Your task to perform on an android device: Open the stopwatch Image 0: 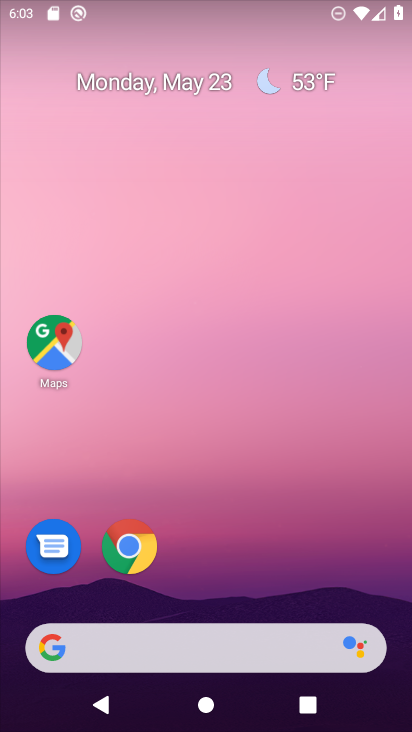
Step 0: drag from (281, 598) to (277, 225)
Your task to perform on an android device: Open the stopwatch Image 1: 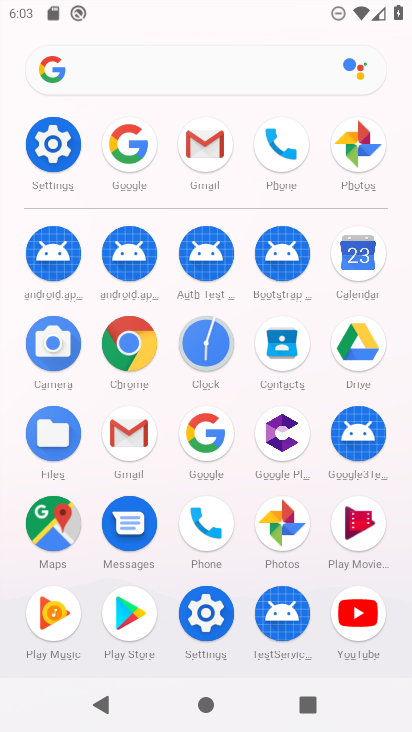
Step 1: click (215, 346)
Your task to perform on an android device: Open the stopwatch Image 2: 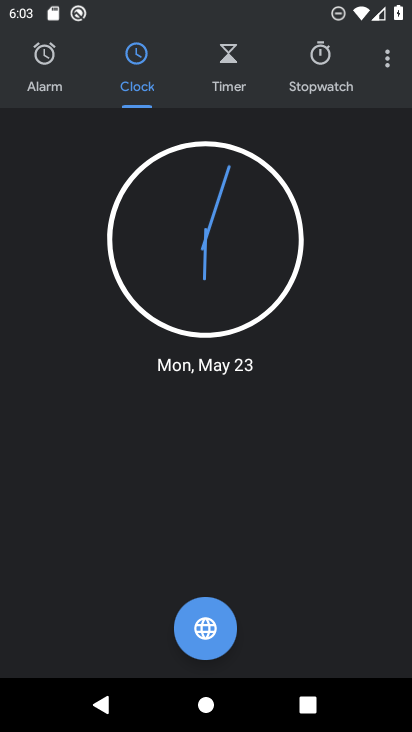
Step 2: click (324, 48)
Your task to perform on an android device: Open the stopwatch Image 3: 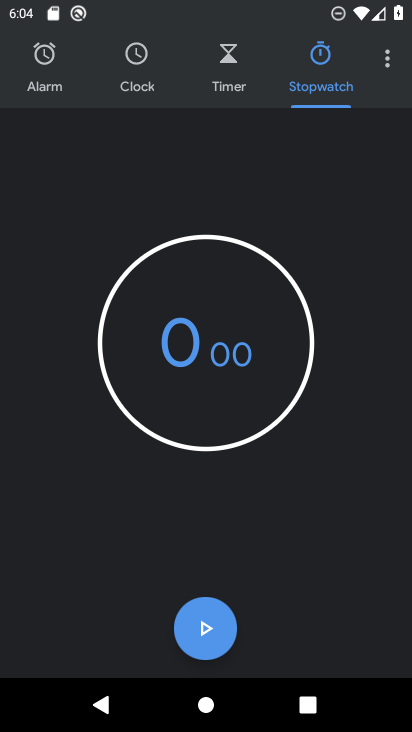
Step 3: click (209, 630)
Your task to perform on an android device: Open the stopwatch Image 4: 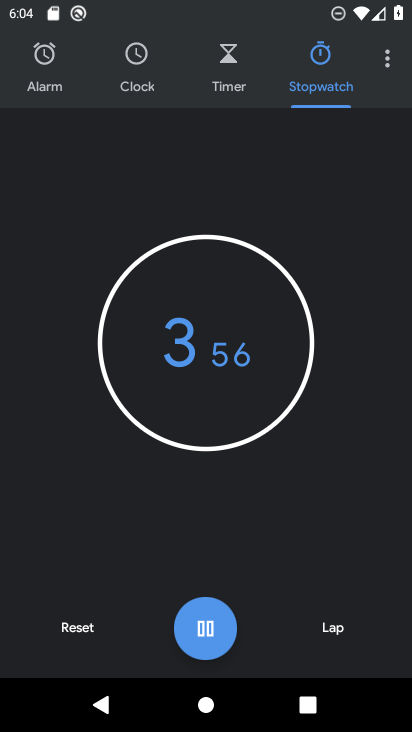
Step 4: task complete